Your task to perform on an android device: Search for sushi restaurants on Maps Image 0: 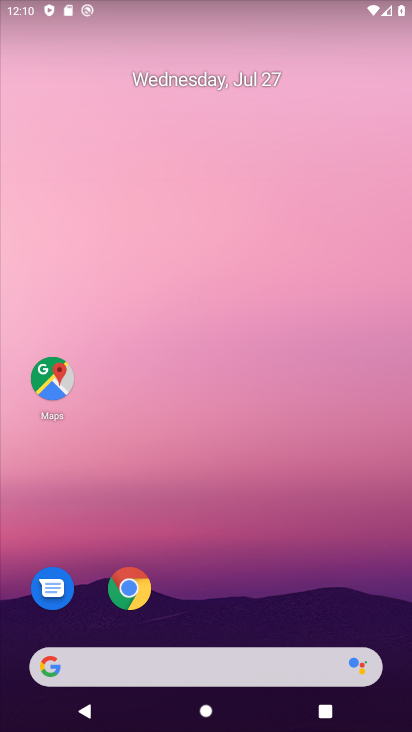
Step 0: click (54, 387)
Your task to perform on an android device: Search for sushi restaurants on Maps Image 1: 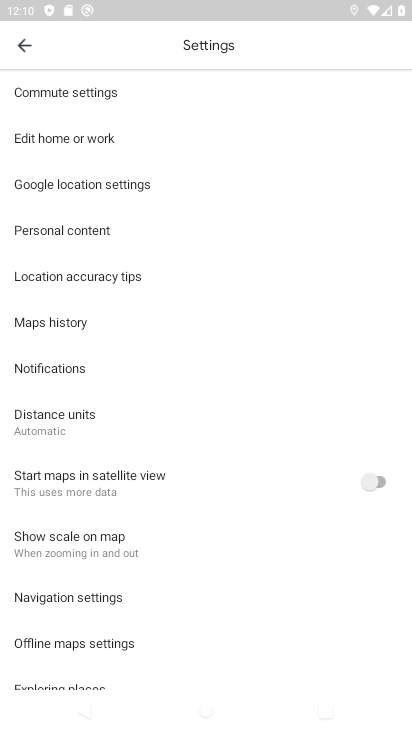
Step 1: click (27, 56)
Your task to perform on an android device: Search for sushi restaurants on Maps Image 2: 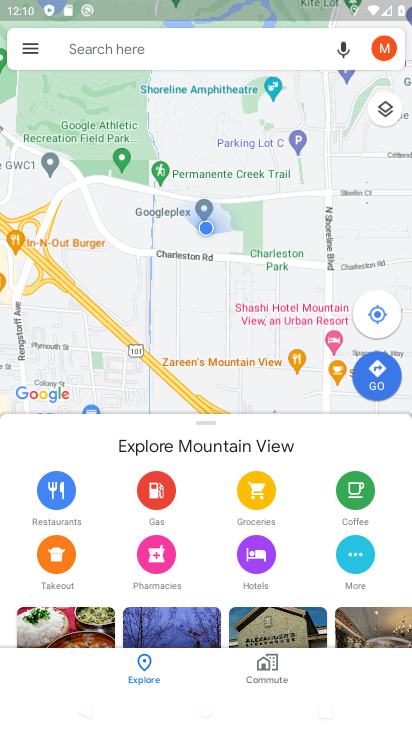
Step 2: click (87, 39)
Your task to perform on an android device: Search for sushi restaurants on Maps Image 3: 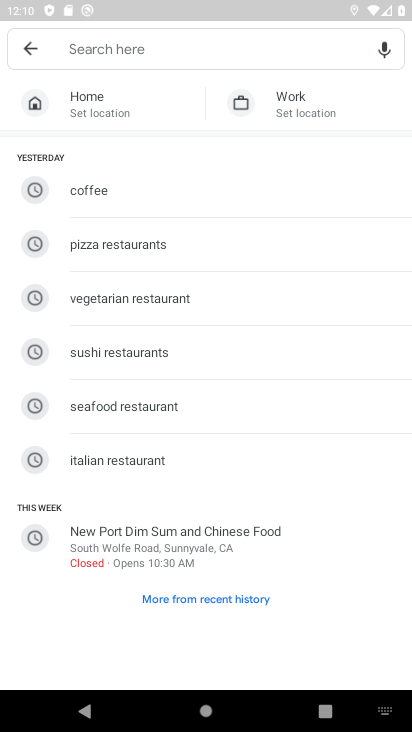
Step 3: click (128, 352)
Your task to perform on an android device: Search for sushi restaurants on Maps Image 4: 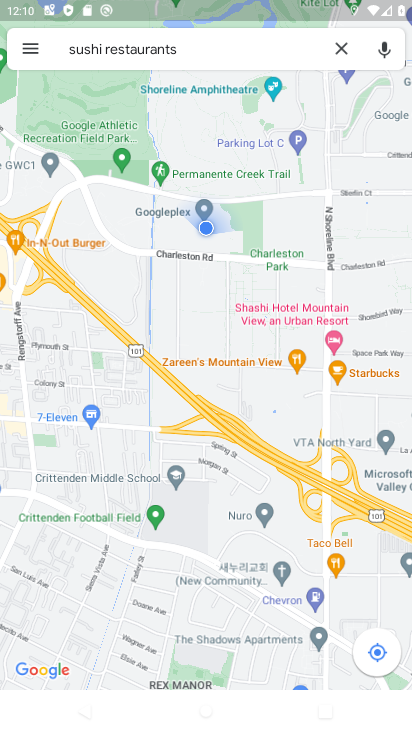
Step 4: task complete